Your task to perform on an android device: Open Amazon Image 0: 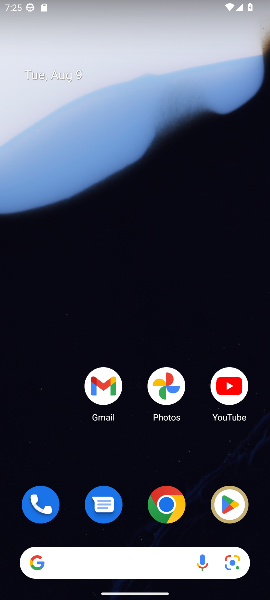
Step 0: click (164, 515)
Your task to perform on an android device: Open Amazon Image 1: 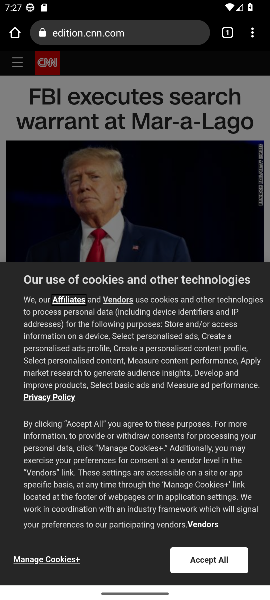
Step 1: click (140, 33)
Your task to perform on an android device: Open Amazon Image 2: 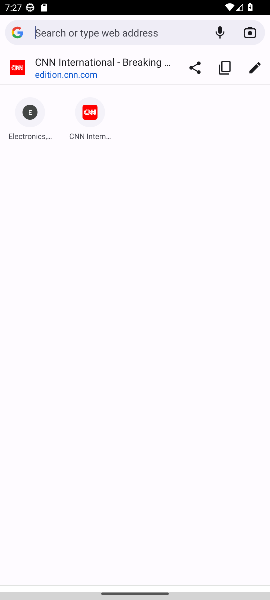
Step 2: click (140, 33)
Your task to perform on an android device: Open Amazon Image 3: 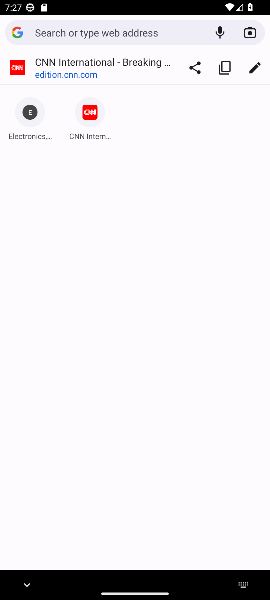
Step 3: type "Amazon"
Your task to perform on an android device: Open Amazon Image 4: 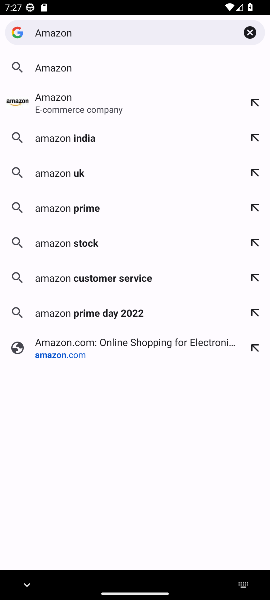
Step 4: click (60, 104)
Your task to perform on an android device: Open Amazon Image 5: 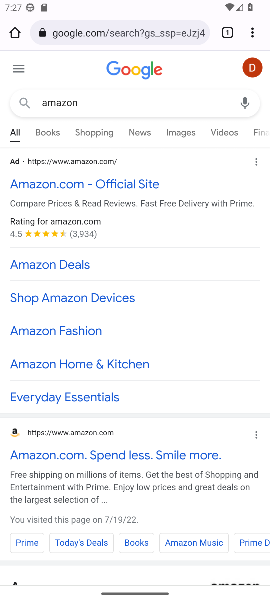
Step 5: click (68, 183)
Your task to perform on an android device: Open Amazon Image 6: 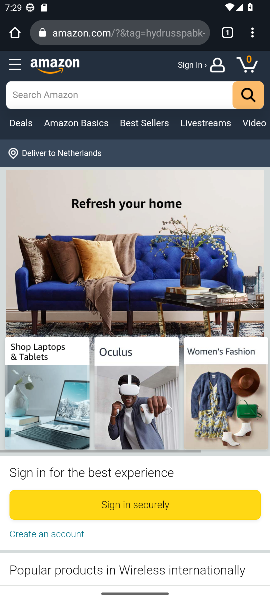
Step 6: task complete